Your task to perform on an android device: Open the calendar and show me this week's events? Image 0: 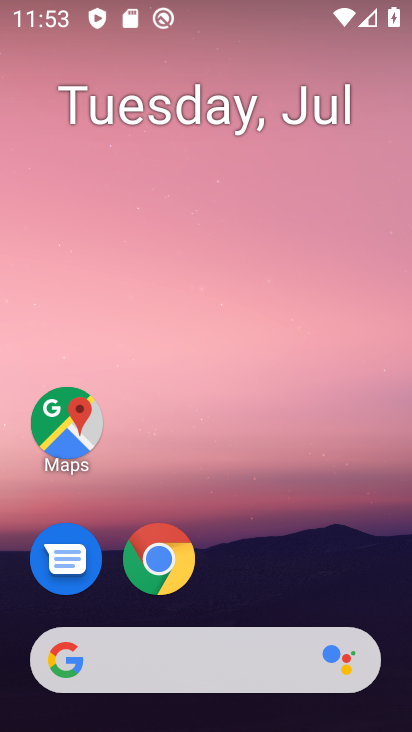
Step 0: drag from (247, 574) to (306, 29)
Your task to perform on an android device: Open the calendar and show me this week's events? Image 1: 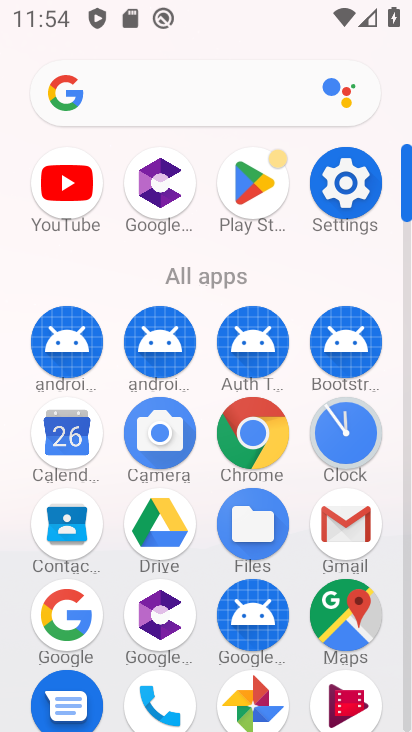
Step 1: click (60, 448)
Your task to perform on an android device: Open the calendar and show me this week's events? Image 2: 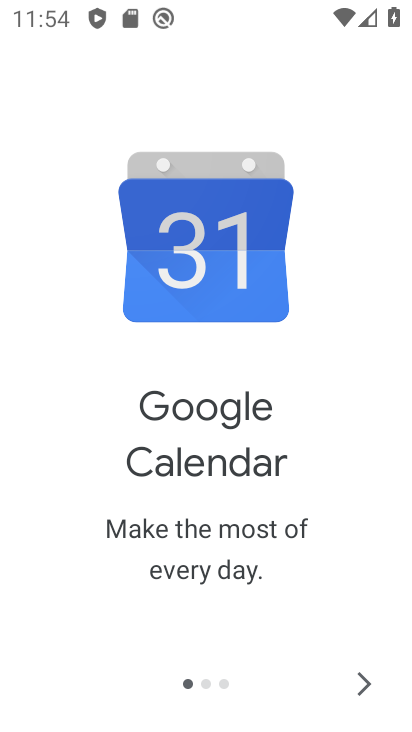
Step 2: click (367, 686)
Your task to perform on an android device: Open the calendar and show me this week's events? Image 3: 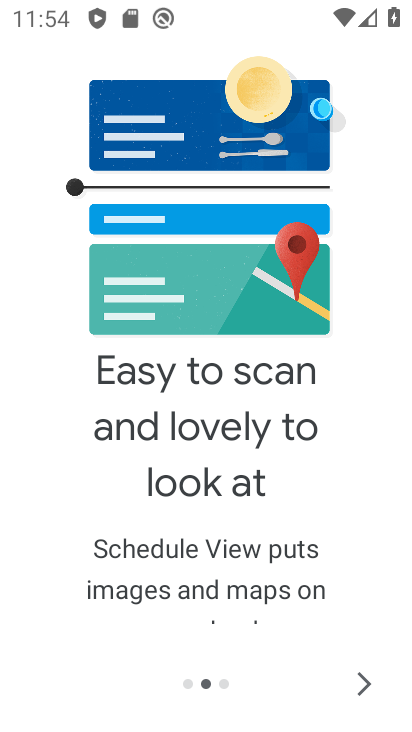
Step 3: click (364, 682)
Your task to perform on an android device: Open the calendar and show me this week's events? Image 4: 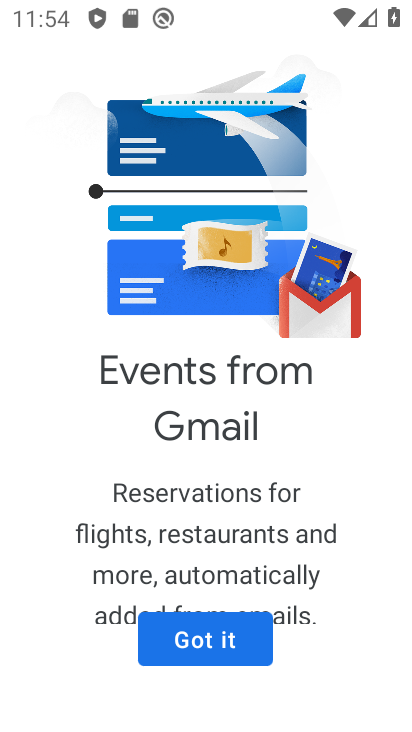
Step 4: click (197, 633)
Your task to perform on an android device: Open the calendar and show me this week's events? Image 5: 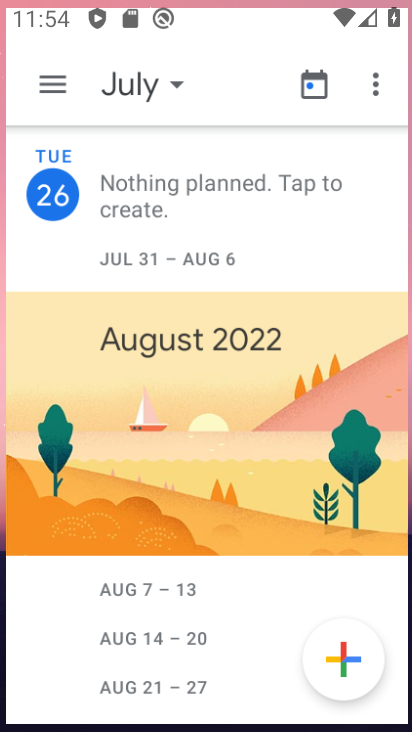
Step 5: task complete